Your task to perform on an android device: delete the emails in spam in the gmail app Image 0: 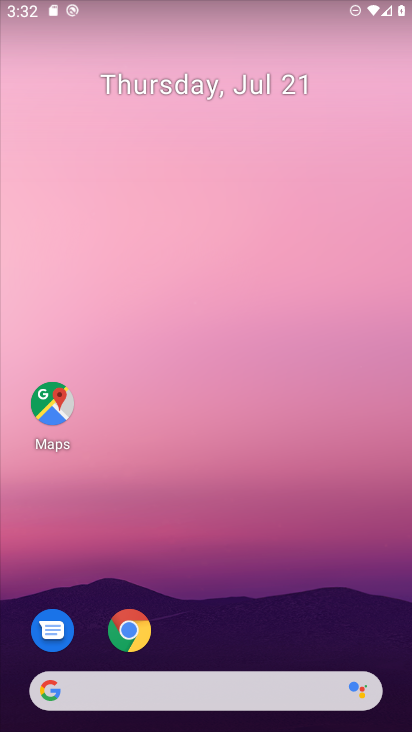
Step 0: drag from (231, 532) to (314, 13)
Your task to perform on an android device: delete the emails in spam in the gmail app Image 1: 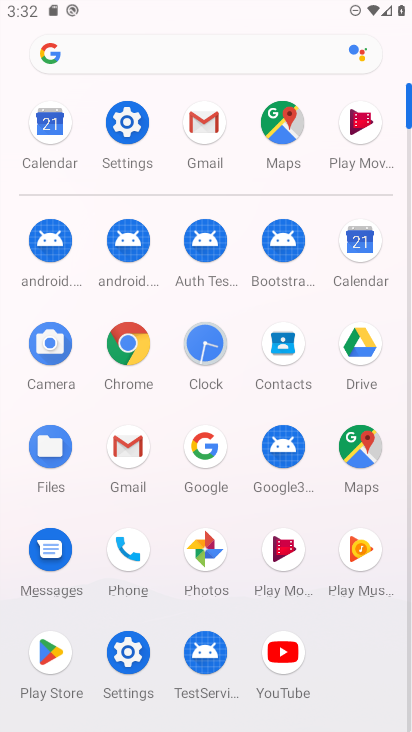
Step 1: click (194, 128)
Your task to perform on an android device: delete the emails in spam in the gmail app Image 2: 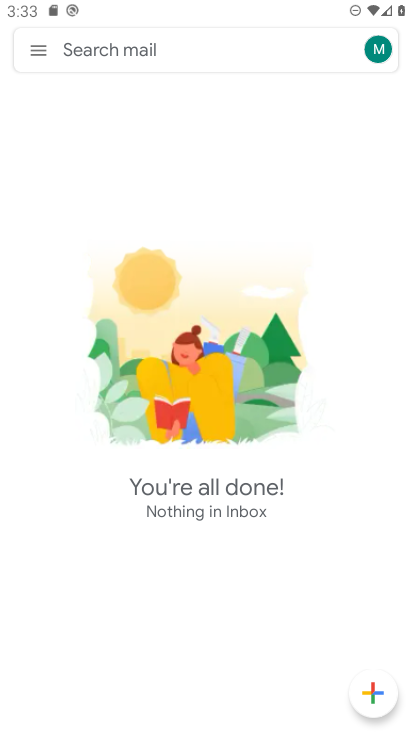
Step 2: click (33, 47)
Your task to perform on an android device: delete the emails in spam in the gmail app Image 3: 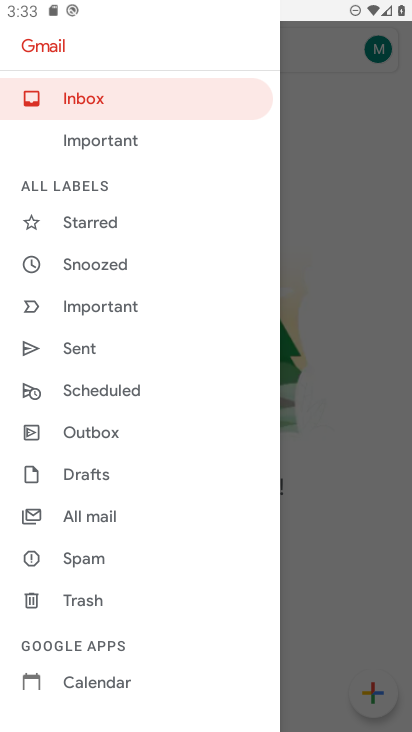
Step 3: click (79, 554)
Your task to perform on an android device: delete the emails in spam in the gmail app Image 4: 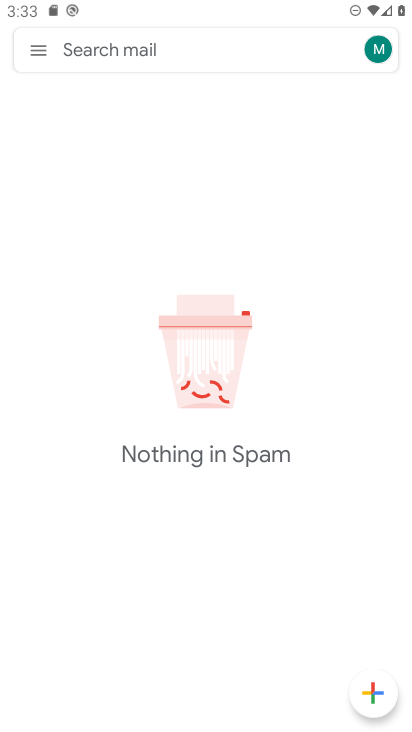
Step 4: task complete